Your task to perform on an android device: Open eBay Image 0: 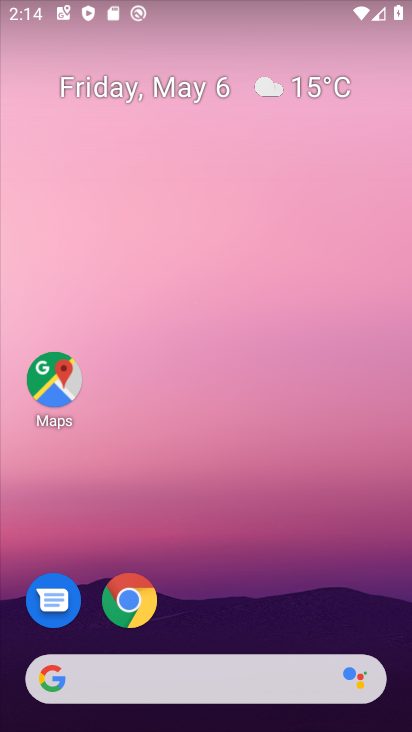
Step 0: drag from (259, 546) to (176, 7)
Your task to perform on an android device: Open eBay Image 1: 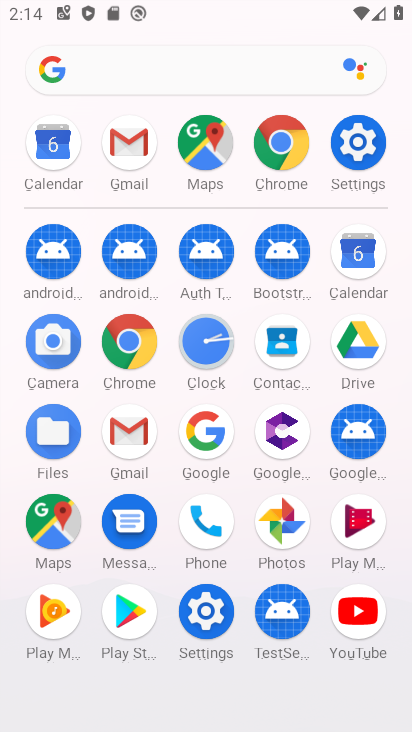
Step 1: drag from (5, 535) to (10, 255)
Your task to perform on an android device: Open eBay Image 2: 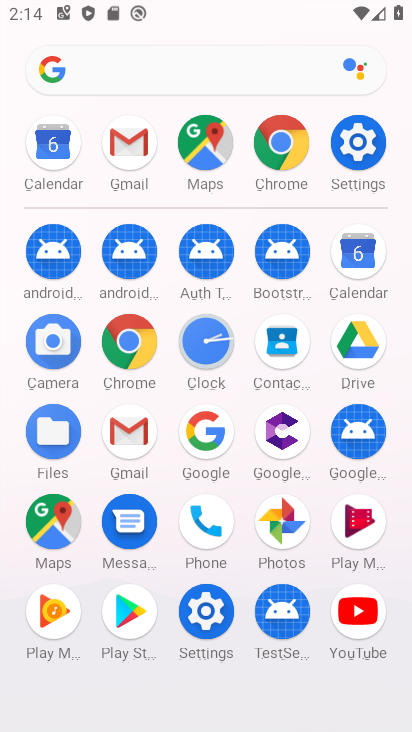
Step 2: click (125, 336)
Your task to perform on an android device: Open eBay Image 3: 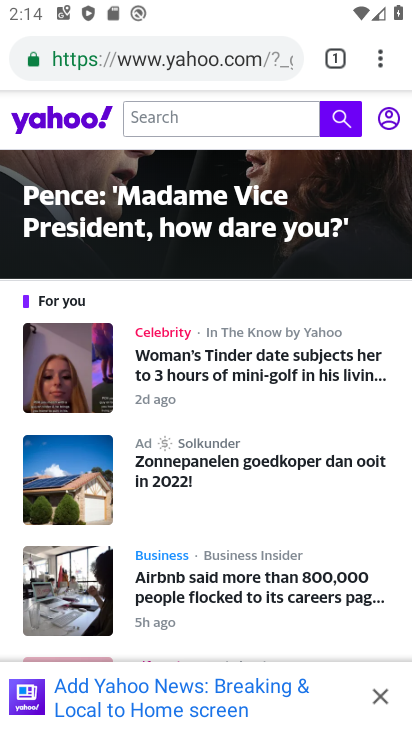
Step 3: click (196, 58)
Your task to perform on an android device: Open eBay Image 4: 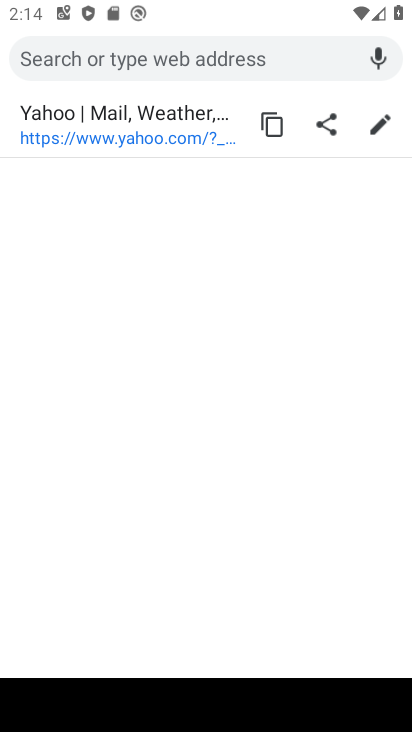
Step 4: type "eBay"
Your task to perform on an android device: Open eBay Image 5: 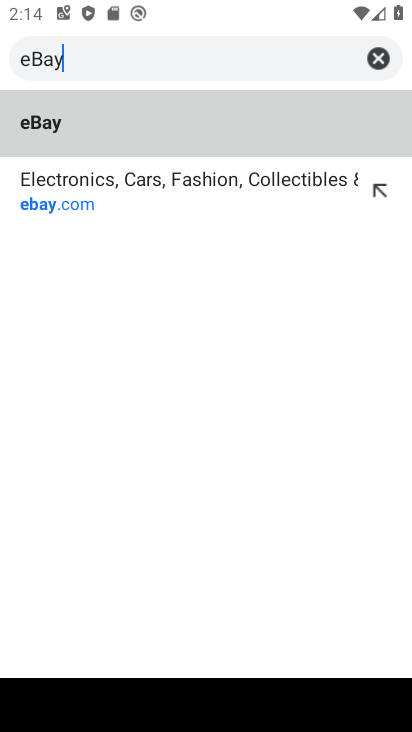
Step 5: type ""
Your task to perform on an android device: Open eBay Image 6: 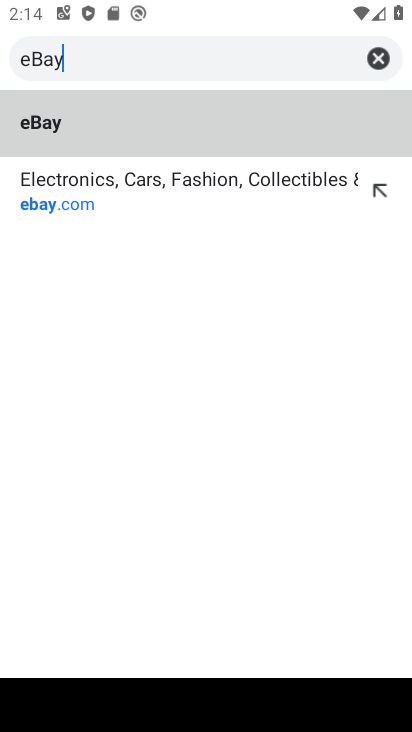
Step 6: click (75, 184)
Your task to perform on an android device: Open eBay Image 7: 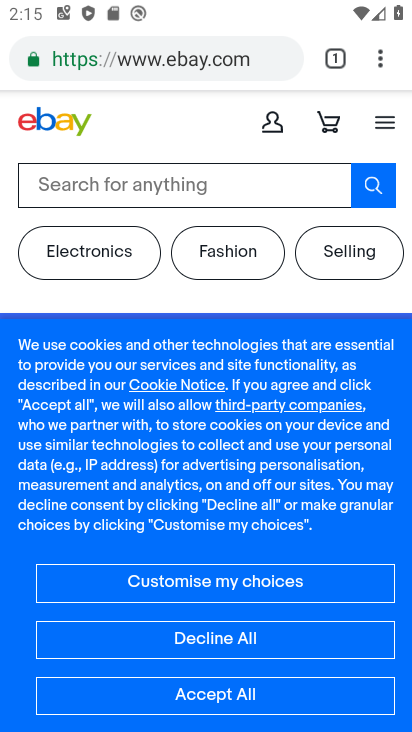
Step 7: task complete